Your task to perform on an android device: make emails show in primary in the gmail app Image 0: 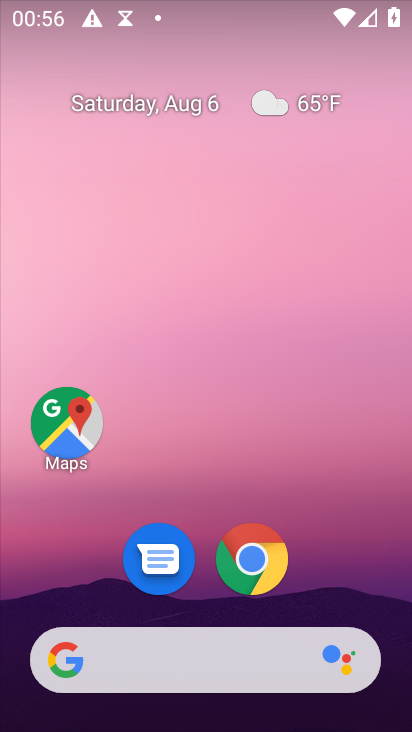
Step 0: drag from (347, 606) to (231, 51)
Your task to perform on an android device: make emails show in primary in the gmail app Image 1: 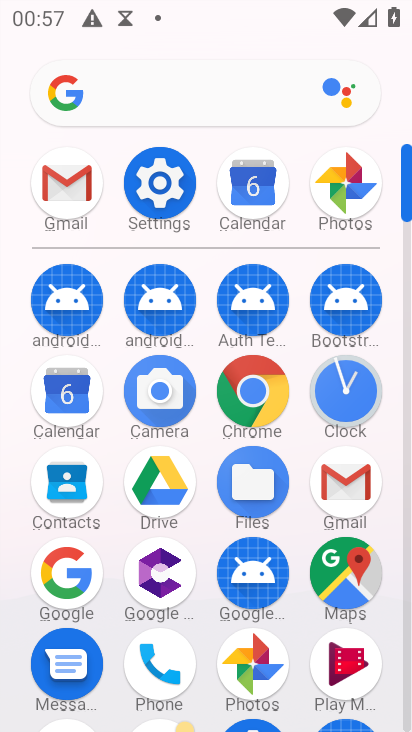
Step 1: click (69, 192)
Your task to perform on an android device: make emails show in primary in the gmail app Image 2: 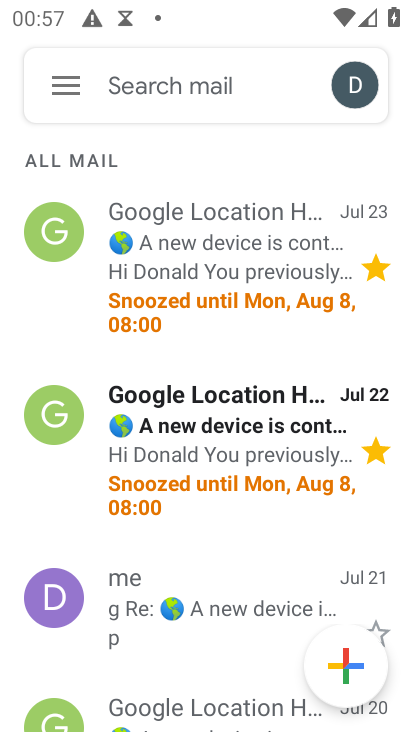
Step 2: click (69, 192)
Your task to perform on an android device: make emails show in primary in the gmail app Image 3: 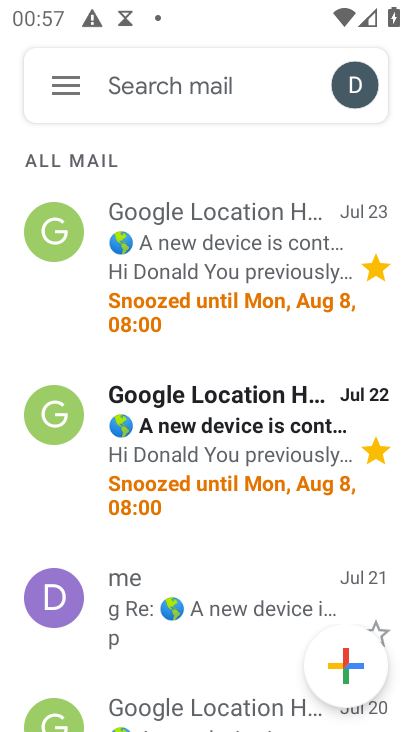
Step 3: click (93, 192)
Your task to perform on an android device: make emails show in primary in the gmail app Image 4: 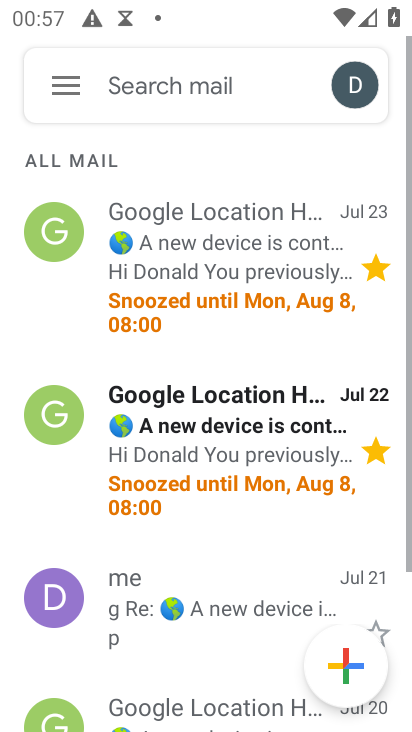
Step 4: click (63, 86)
Your task to perform on an android device: make emails show in primary in the gmail app Image 5: 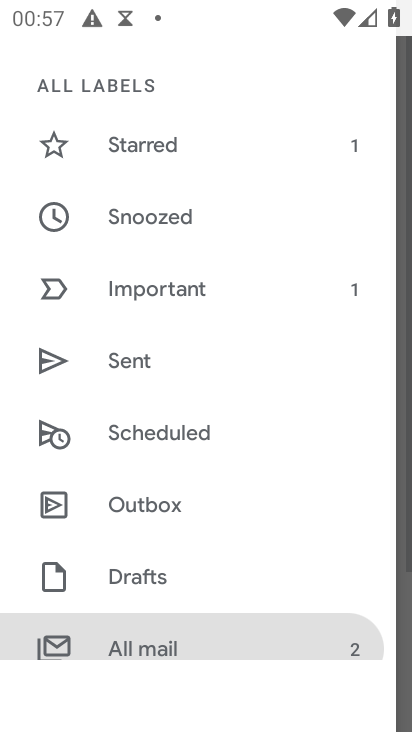
Step 5: drag from (136, 543) to (130, 235)
Your task to perform on an android device: make emails show in primary in the gmail app Image 6: 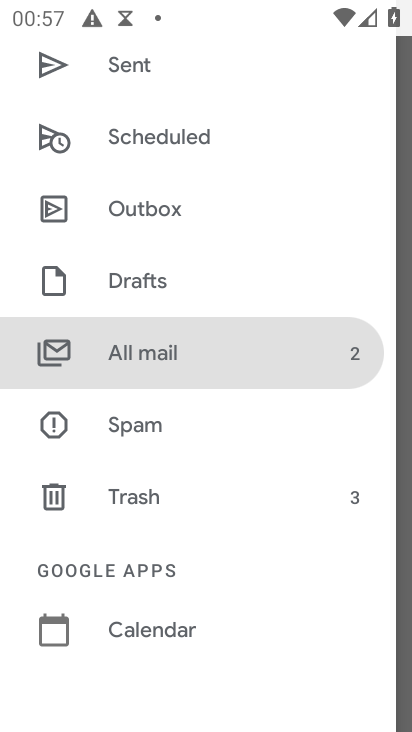
Step 6: drag from (156, 663) to (162, 308)
Your task to perform on an android device: make emails show in primary in the gmail app Image 7: 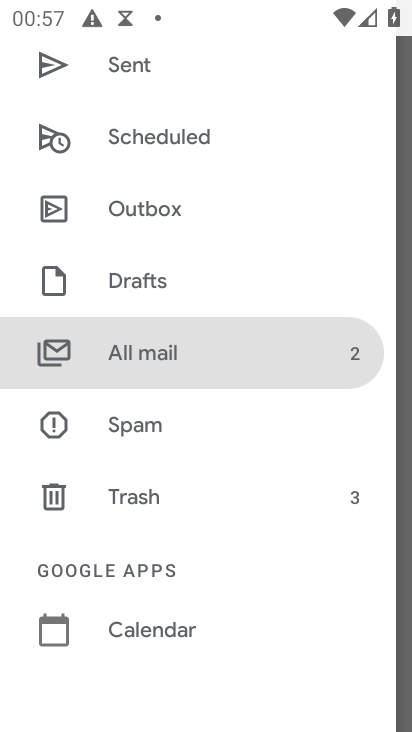
Step 7: drag from (150, 578) to (135, 152)
Your task to perform on an android device: make emails show in primary in the gmail app Image 8: 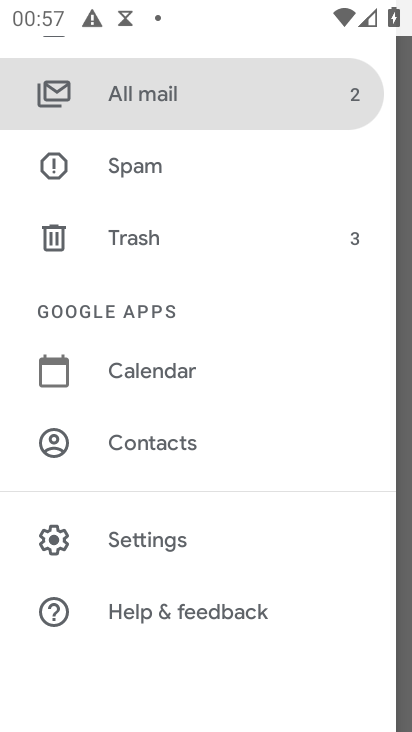
Step 8: click (148, 545)
Your task to perform on an android device: make emails show in primary in the gmail app Image 9: 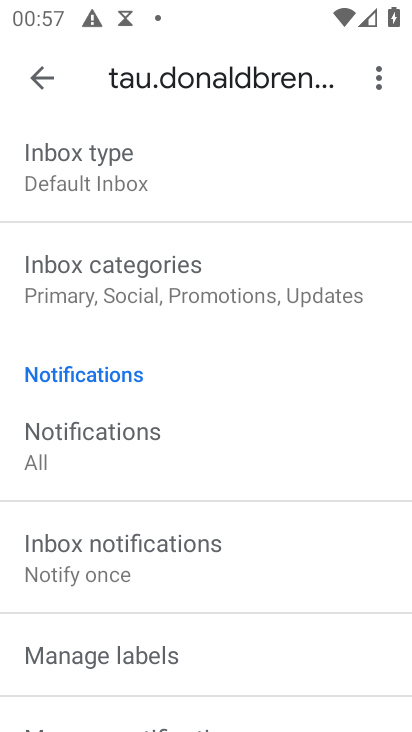
Step 9: click (140, 190)
Your task to perform on an android device: make emails show in primary in the gmail app Image 10: 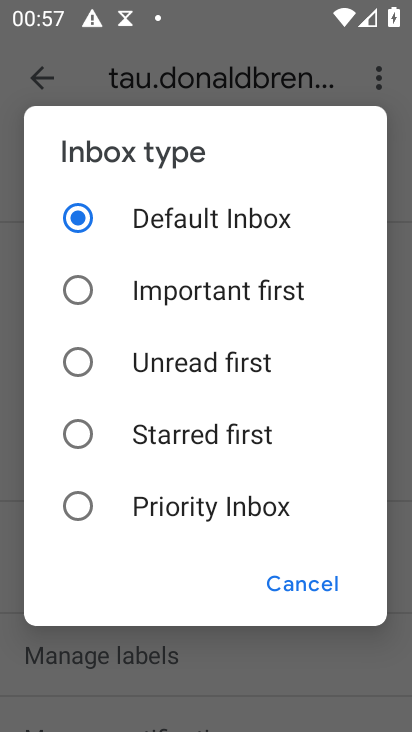
Step 10: task complete